Your task to perform on an android device: Open Google Chrome and open the bookmarks view Image 0: 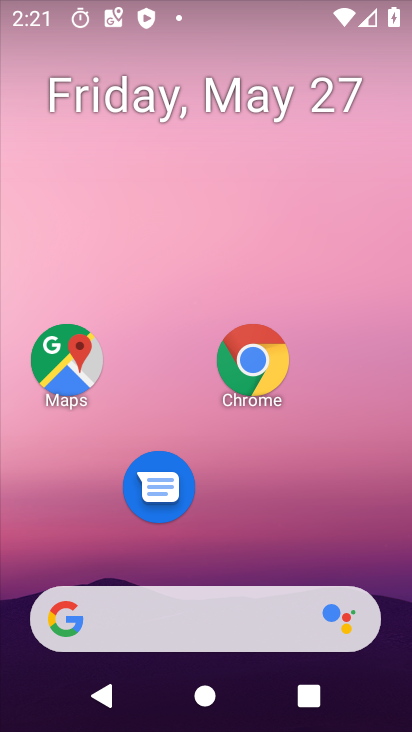
Step 0: click (262, 364)
Your task to perform on an android device: Open Google Chrome and open the bookmarks view Image 1: 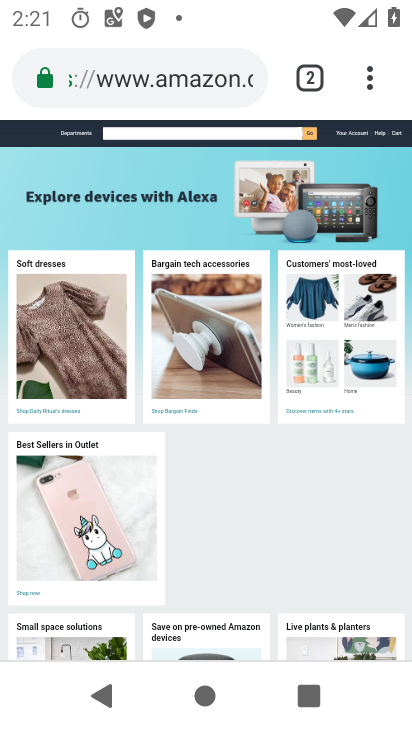
Step 1: click (367, 74)
Your task to perform on an android device: Open Google Chrome and open the bookmarks view Image 2: 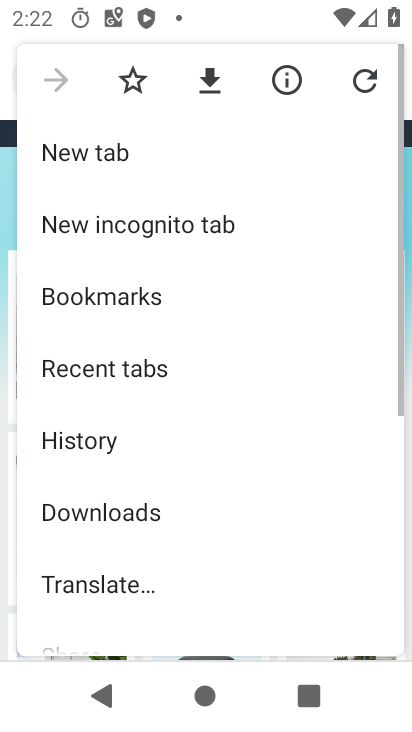
Step 2: drag from (259, 476) to (294, 110)
Your task to perform on an android device: Open Google Chrome and open the bookmarks view Image 3: 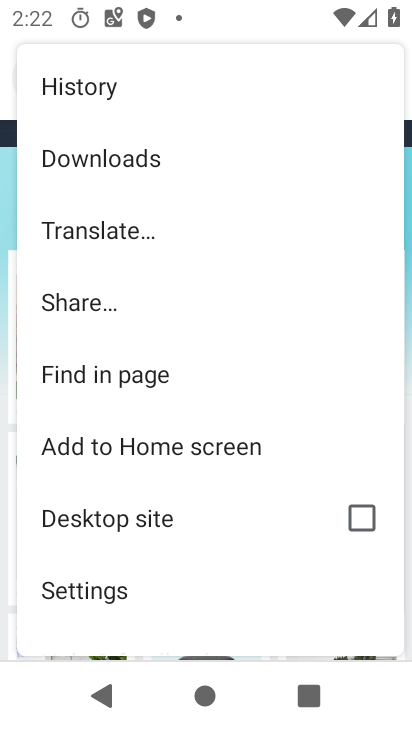
Step 3: drag from (152, 237) to (231, 254)
Your task to perform on an android device: Open Google Chrome and open the bookmarks view Image 4: 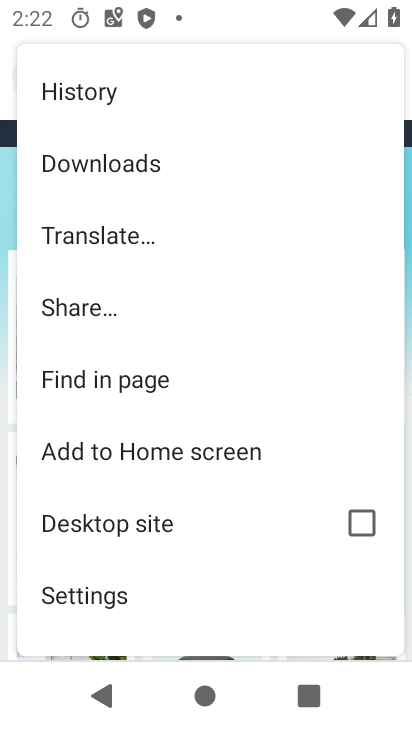
Step 4: drag from (160, 182) to (186, 583)
Your task to perform on an android device: Open Google Chrome and open the bookmarks view Image 5: 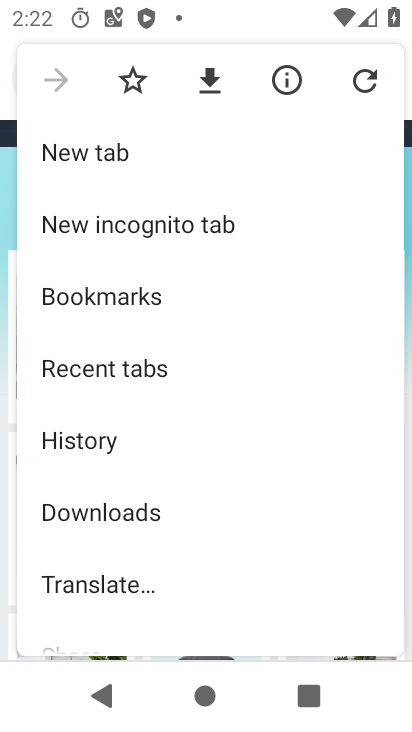
Step 5: click (130, 303)
Your task to perform on an android device: Open Google Chrome and open the bookmarks view Image 6: 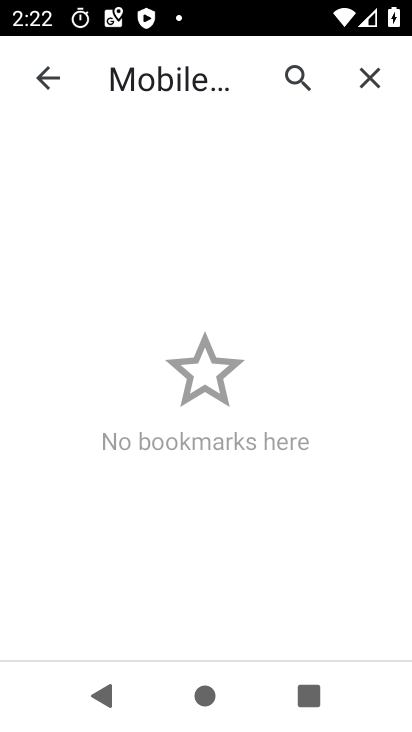
Step 6: task complete